Your task to perform on an android device: Go to Maps Image 0: 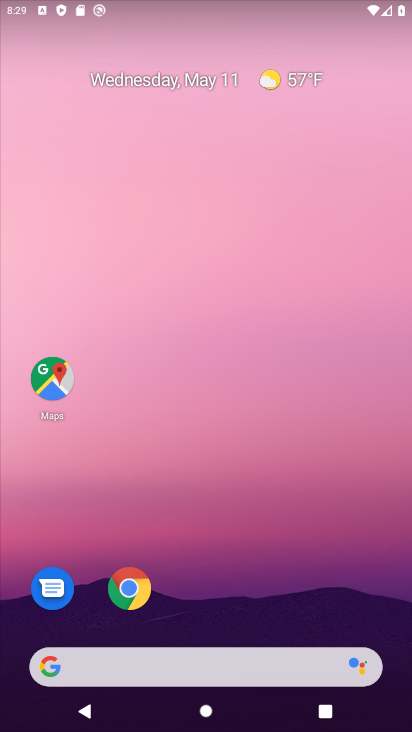
Step 0: click (50, 369)
Your task to perform on an android device: Go to Maps Image 1: 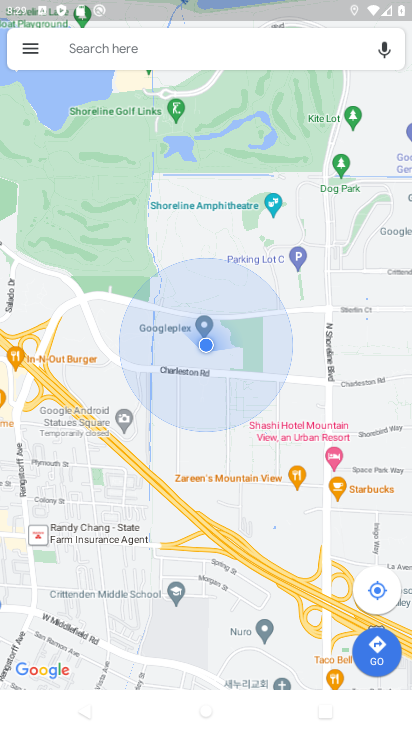
Step 1: task complete